Your task to perform on an android device: Open Reddit.com Image 0: 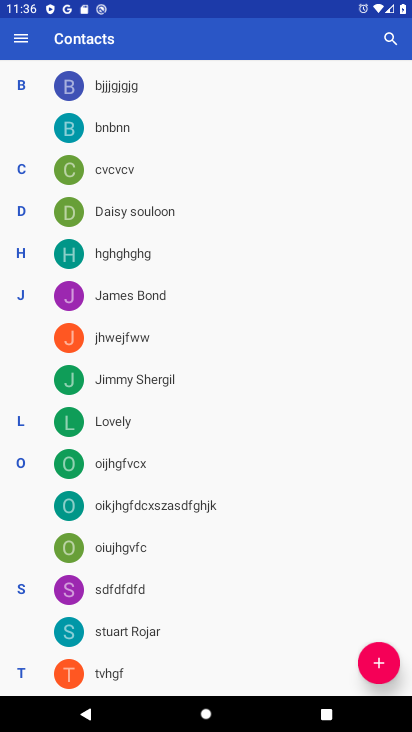
Step 0: press home button
Your task to perform on an android device: Open Reddit.com Image 1: 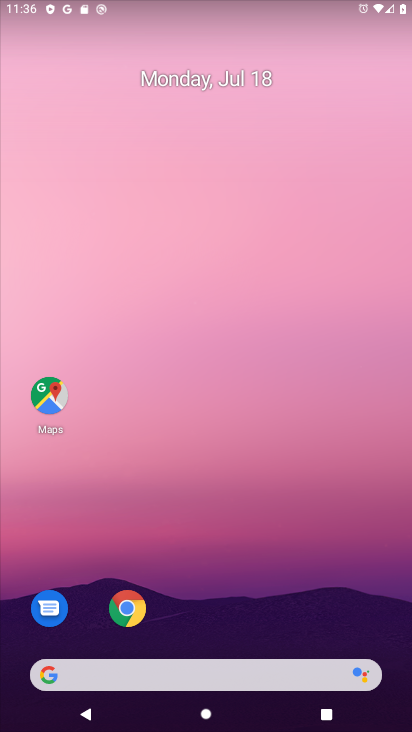
Step 1: click (111, 608)
Your task to perform on an android device: Open Reddit.com Image 2: 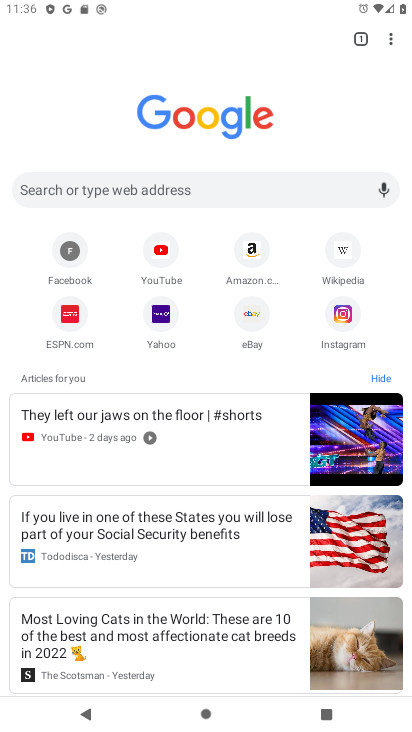
Step 2: click (147, 183)
Your task to perform on an android device: Open Reddit.com Image 3: 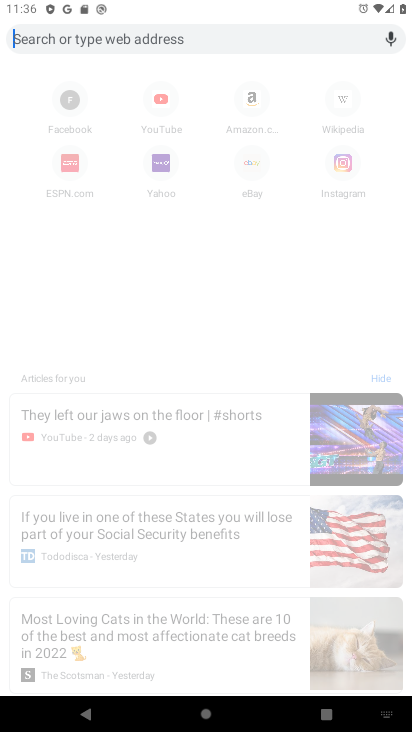
Step 3: type "Reddit.com"
Your task to perform on an android device: Open Reddit.com Image 4: 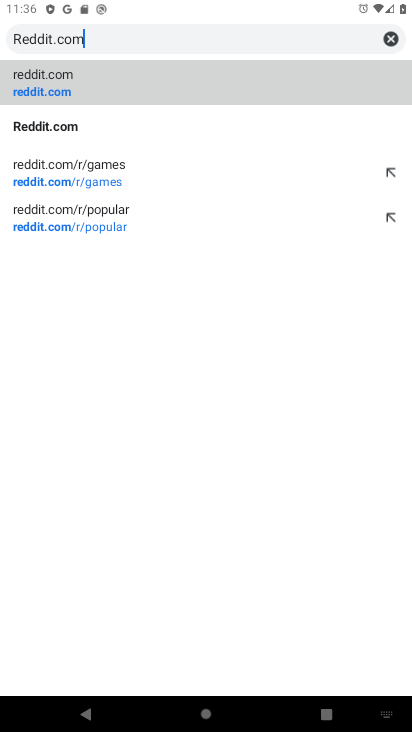
Step 4: click (77, 81)
Your task to perform on an android device: Open Reddit.com Image 5: 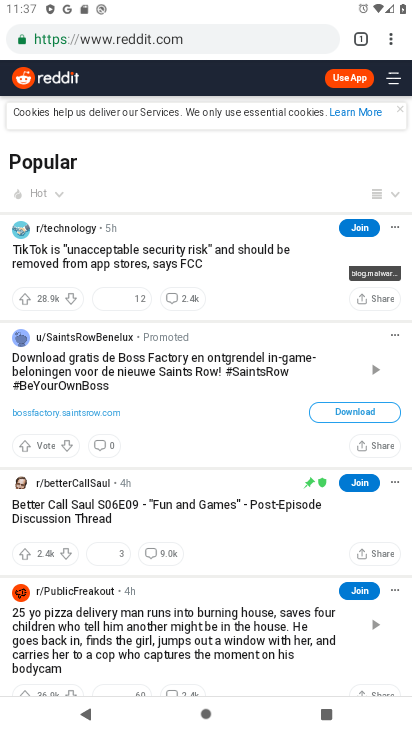
Step 5: task complete